Your task to perform on an android device: Open my contact list Image 0: 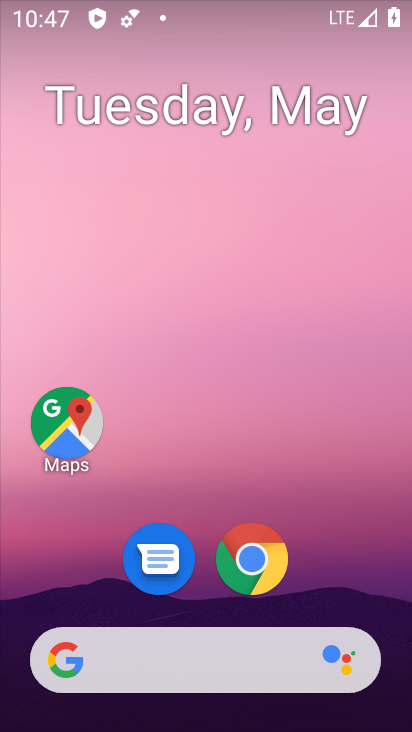
Step 0: drag from (344, 365) to (339, 183)
Your task to perform on an android device: Open my contact list Image 1: 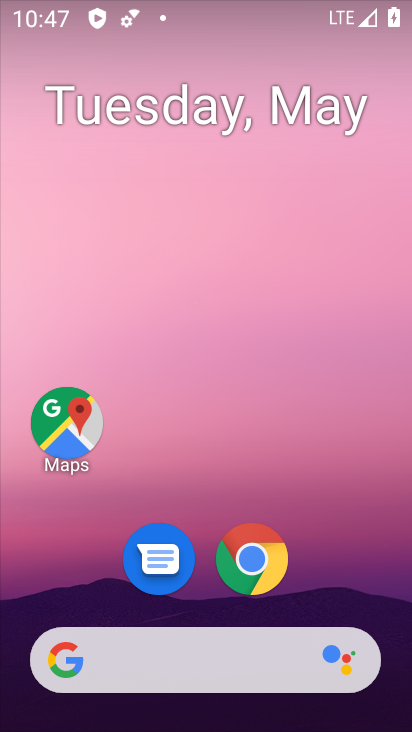
Step 1: drag from (311, 550) to (306, 137)
Your task to perform on an android device: Open my contact list Image 2: 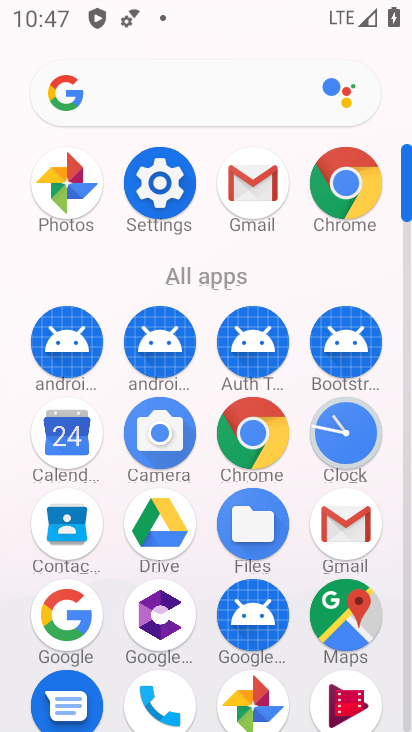
Step 2: drag from (198, 567) to (239, 282)
Your task to perform on an android device: Open my contact list Image 3: 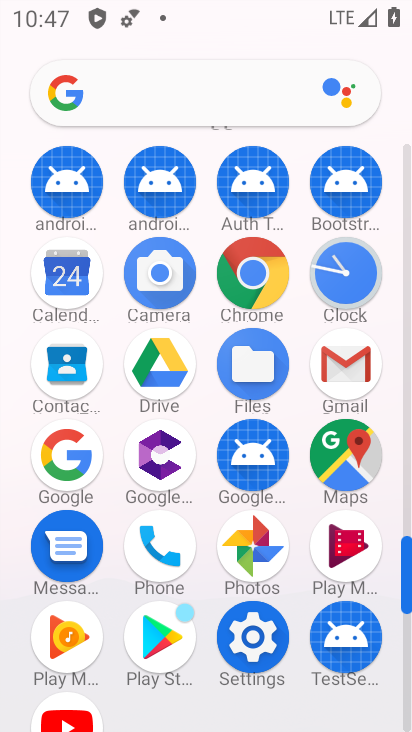
Step 3: click (69, 374)
Your task to perform on an android device: Open my contact list Image 4: 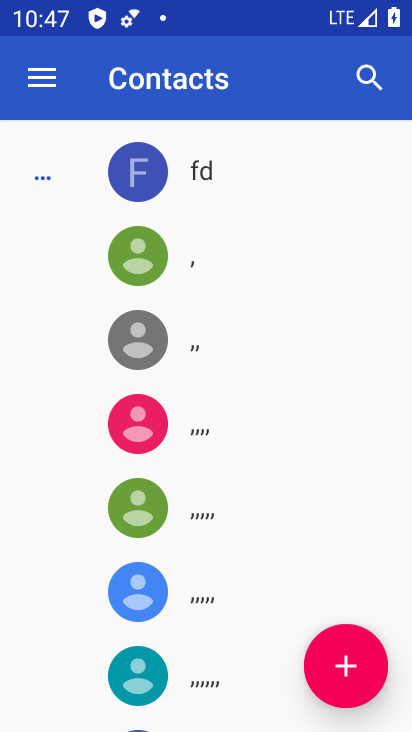
Step 4: task complete